Your task to perform on an android device: Open Youtube and go to the subscriptions tab Image 0: 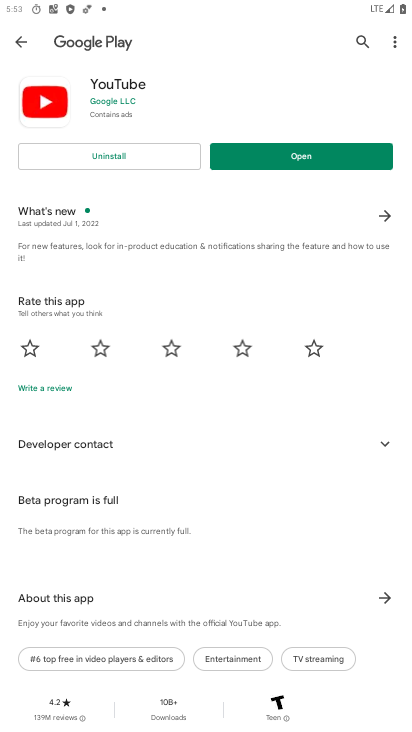
Step 0: press home button
Your task to perform on an android device: Open Youtube and go to the subscriptions tab Image 1: 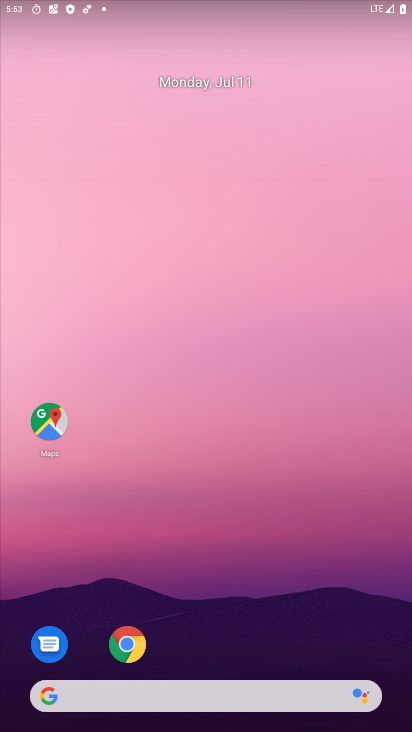
Step 1: drag from (294, 588) to (410, 2)
Your task to perform on an android device: Open Youtube and go to the subscriptions tab Image 2: 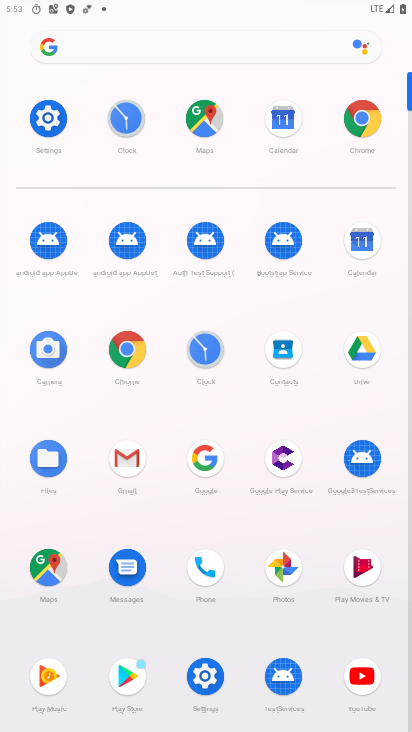
Step 2: click (353, 676)
Your task to perform on an android device: Open Youtube and go to the subscriptions tab Image 3: 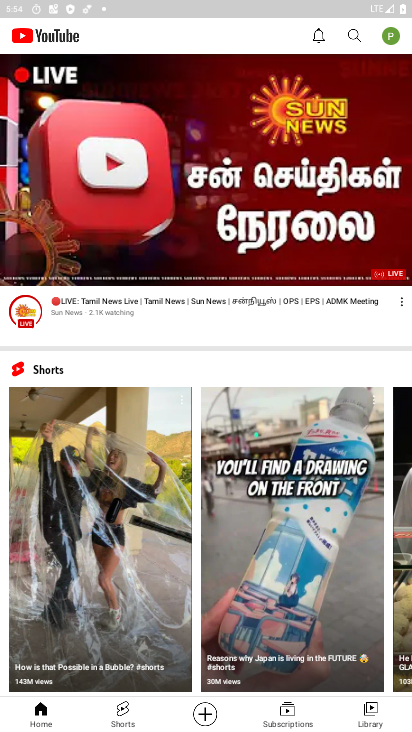
Step 3: click (291, 712)
Your task to perform on an android device: Open Youtube and go to the subscriptions tab Image 4: 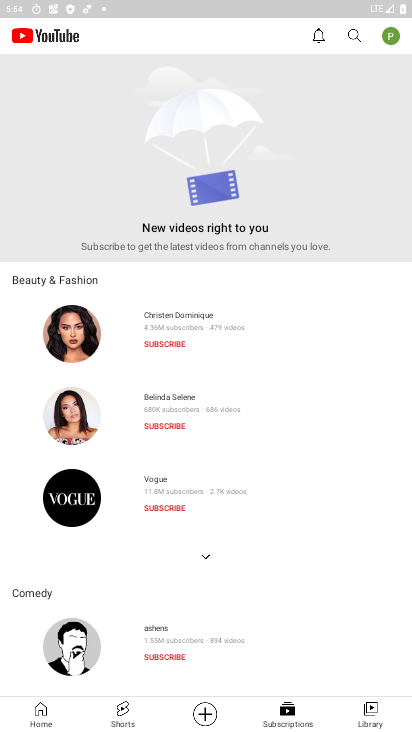
Step 4: task complete